Your task to perform on an android device: allow notifications from all sites in the chrome app Image 0: 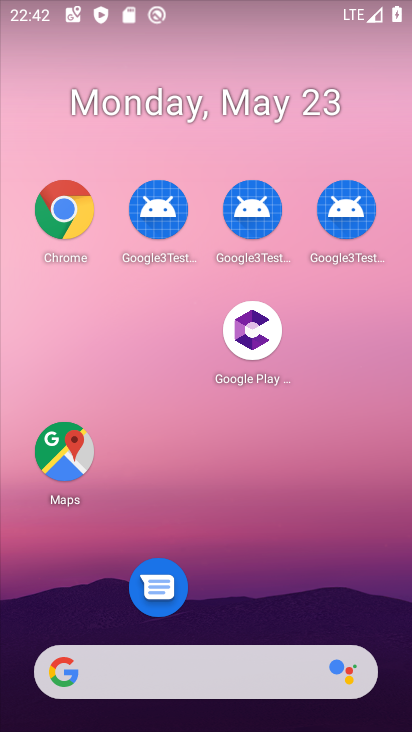
Step 0: click (56, 207)
Your task to perform on an android device: allow notifications from all sites in the chrome app Image 1: 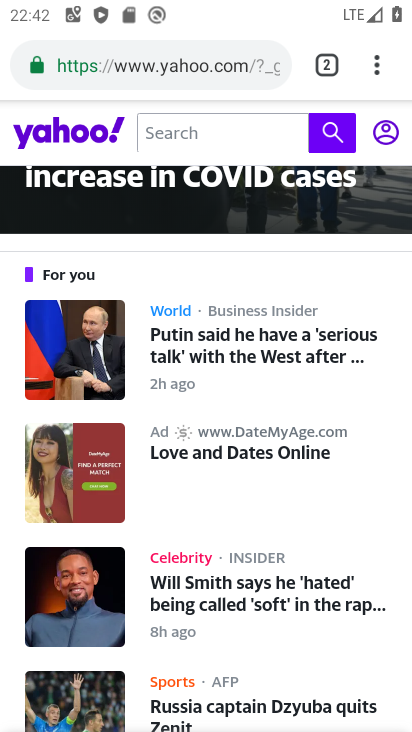
Step 1: click (381, 62)
Your task to perform on an android device: allow notifications from all sites in the chrome app Image 2: 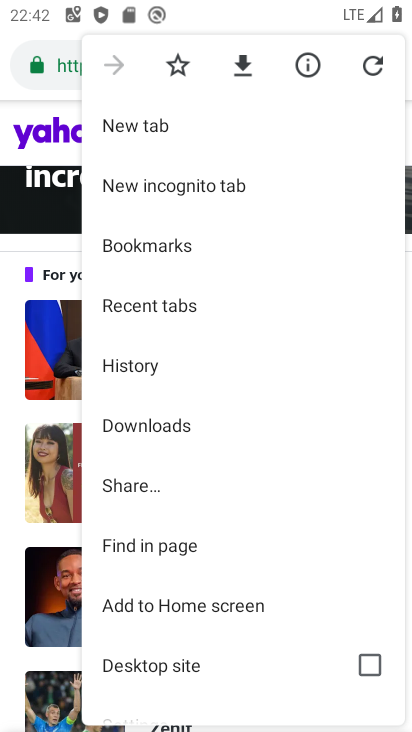
Step 2: drag from (230, 613) to (216, 433)
Your task to perform on an android device: allow notifications from all sites in the chrome app Image 3: 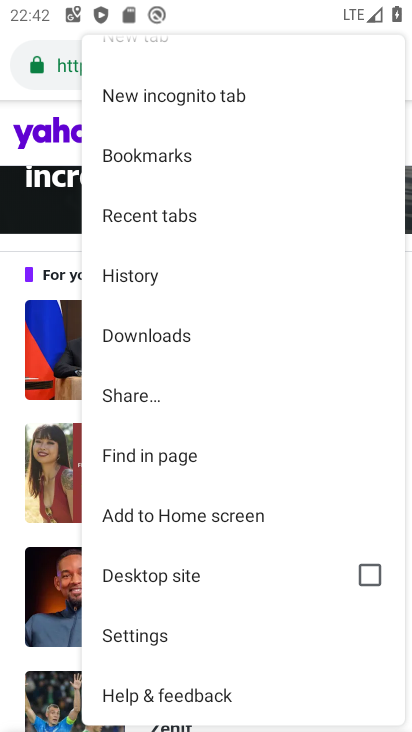
Step 3: click (147, 643)
Your task to perform on an android device: allow notifications from all sites in the chrome app Image 4: 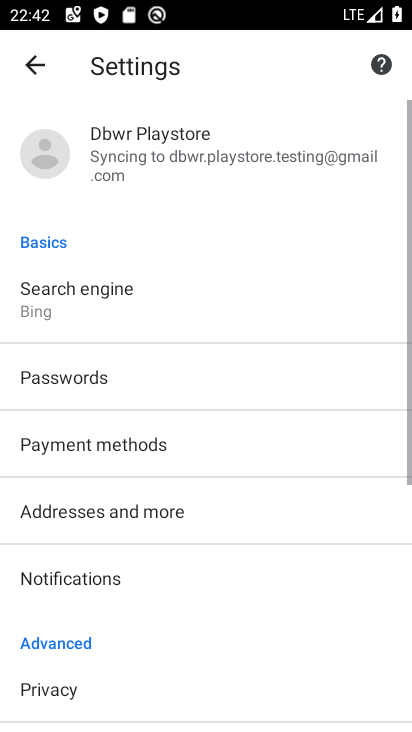
Step 4: drag from (151, 625) to (127, 381)
Your task to perform on an android device: allow notifications from all sites in the chrome app Image 5: 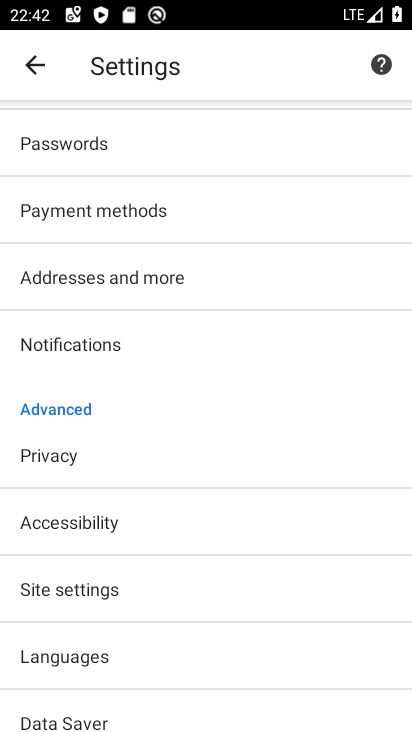
Step 5: click (104, 344)
Your task to perform on an android device: allow notifications from all sites in the chrome app Image 6: 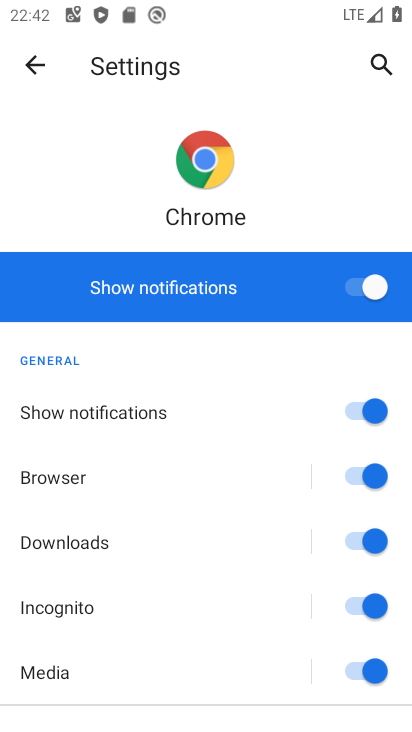
Step 6: drag from (138, 637) to (116, 246)
Your task to perform on an android device: allow notifications from all sites in the chrome app Image 7: 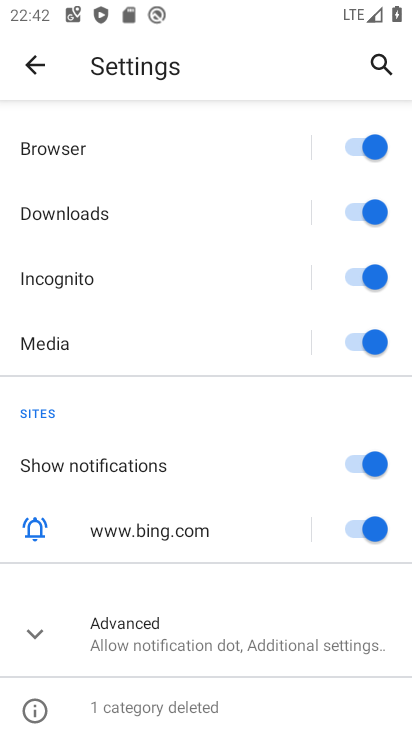
Step 7: click (174, 629)
Your task to perform on an android device: allow notifications from all sites in the chrome app Image 8: 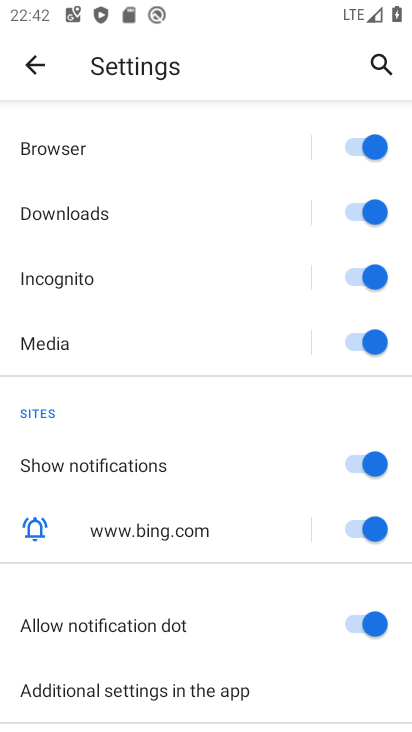
Step 8: task complete